Your task to perform on an android device: find which apps use the phone's location Image 0: 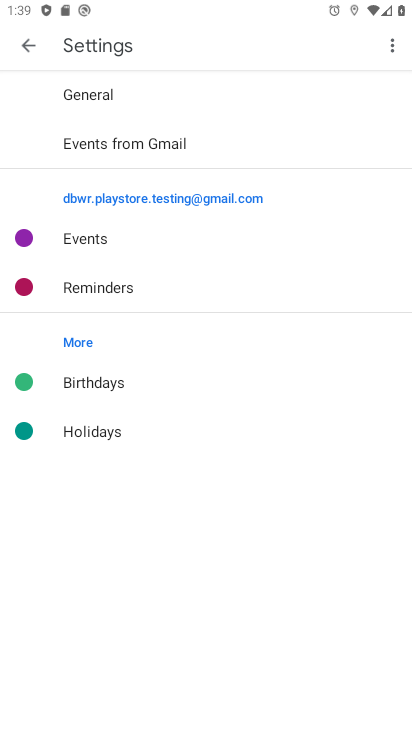
Step 0: press home button
Your task to perform on an android device: find which apps use the phone's location Image 1: 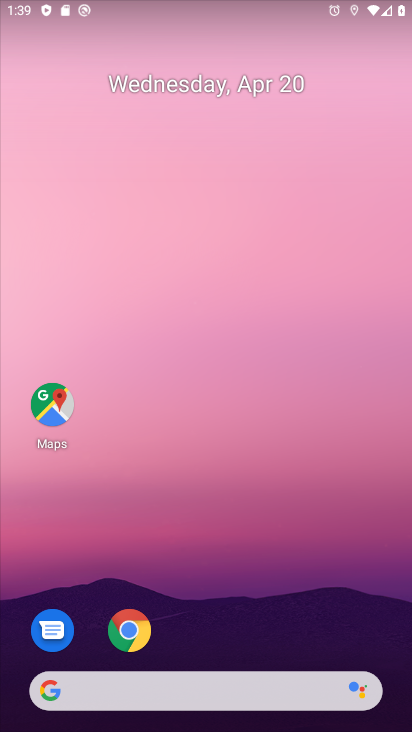
Step 1: drag from (227, 606) to (75, 71)
Your task to perform on an android device: find which apps use the phone's location Image 2: 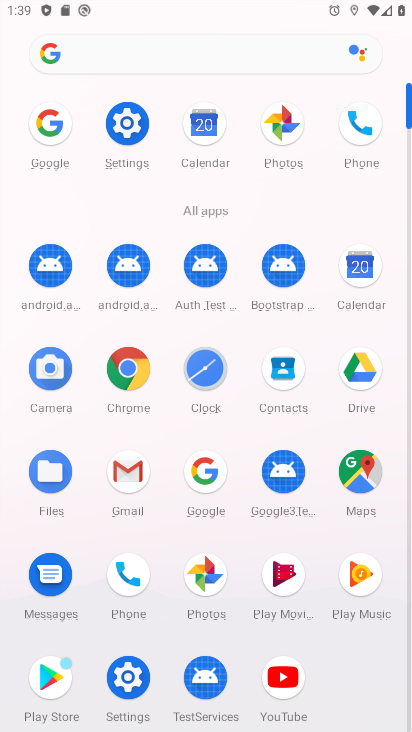
Step 2: click (125, 123)
Your task to perform on an android device: find which apps use the phone's location Image 3: 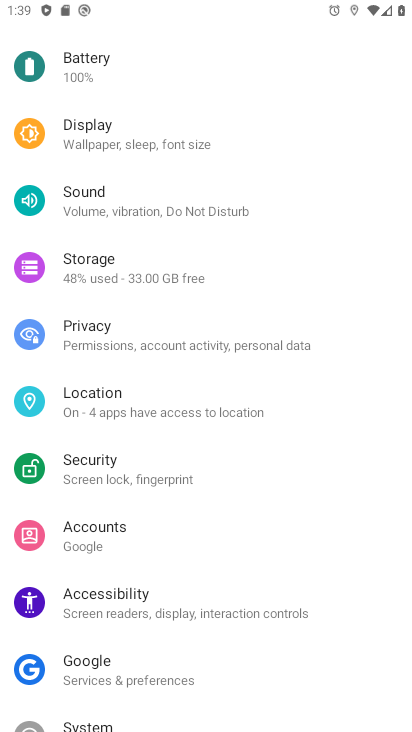
Step 3: click (85, 393)
Your task to perform on an android device: find which apps use the phone's location Image 4: 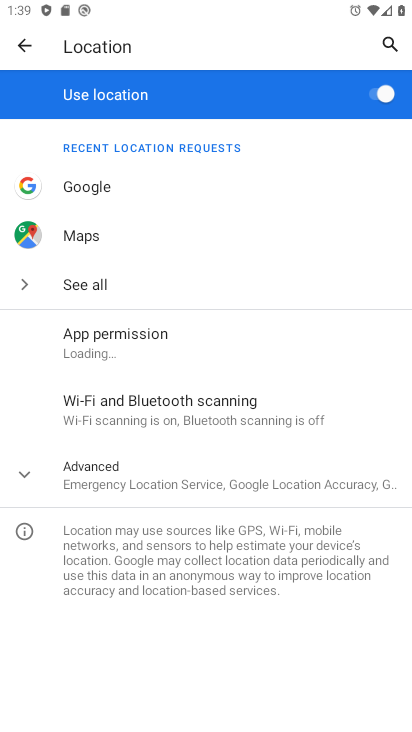
Step 4: click (109, 341)
Your task to perform on an android device: find which apps use the phone's location Image 5: 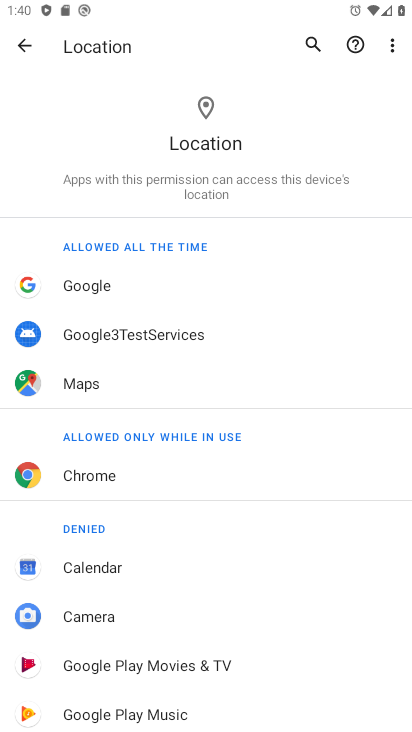
Step 5: task complete